Your task to perform on an android device: open a bookmark in the chrome app Image 0: 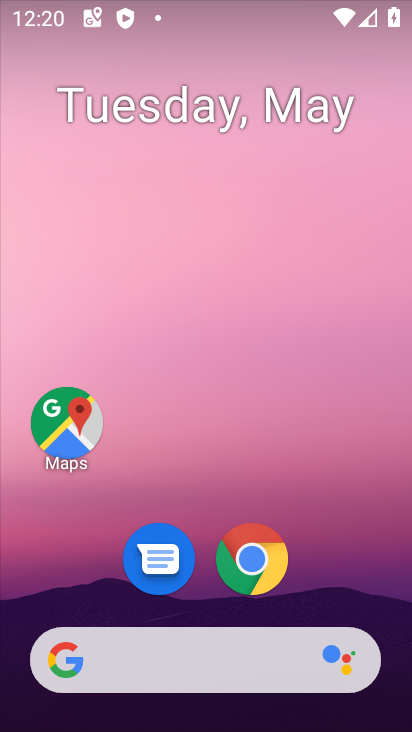
Step 0: click (260, 560)
Your task to perform on an android device: open a bookmark in the chrome app Image 1: 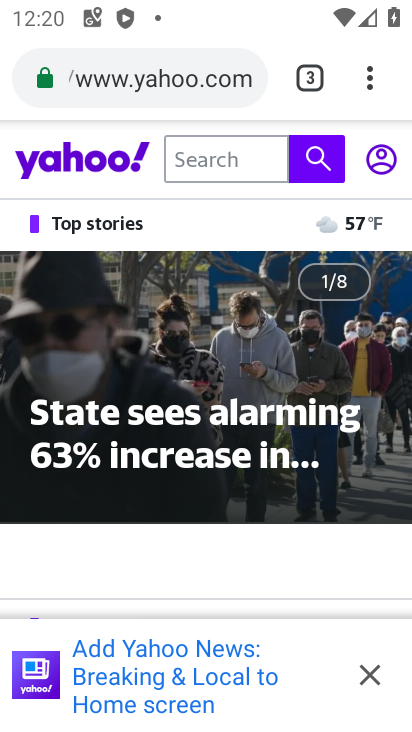
Step 1: click (374, 80)
Your task to perform on an android device: open a bookmark in the chrome app Image 2: 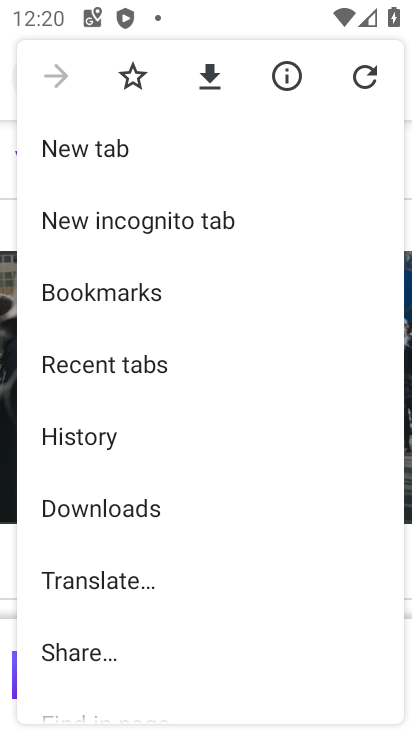
Step 2: click (153, 303)
Your task to perform on an android device: open a bookmark in the chrome app Image 3: 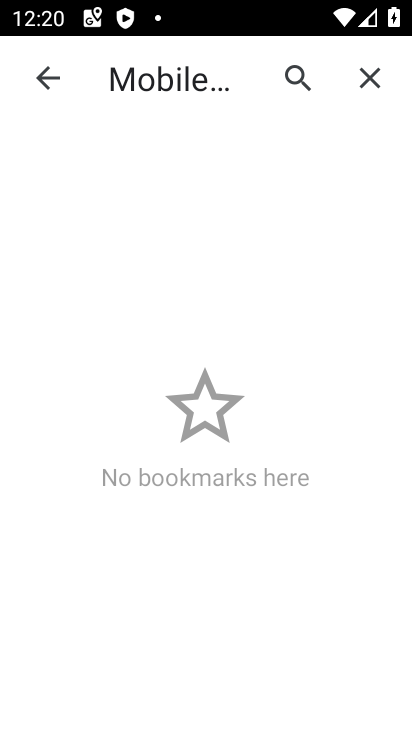
Step 3: task complete